Your task to perform on an android device: Go to network settings Image 0: 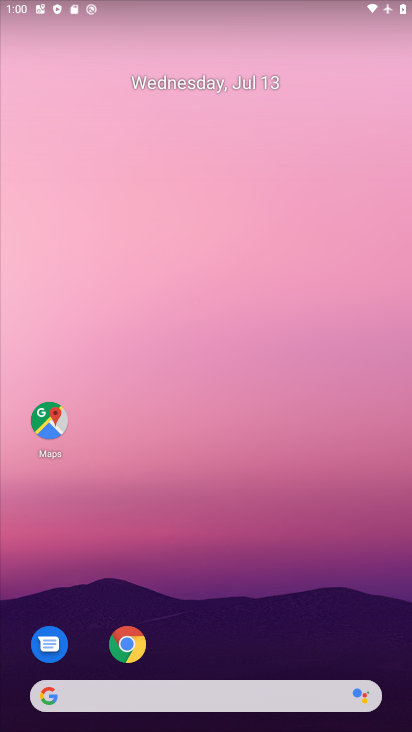
Step 0: drag from (291, 579) to (266, 78)
Your task to perform on an android device: Go to network settings Image 1: 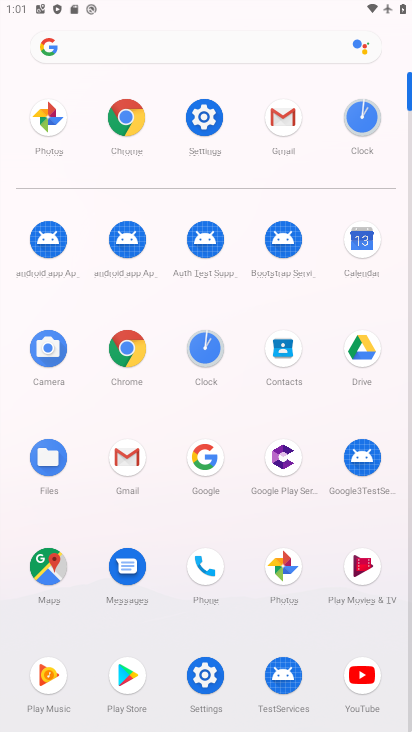
Step 1: click (205, 103)
Your task to perform on an android device: Go to network settings Image 2: 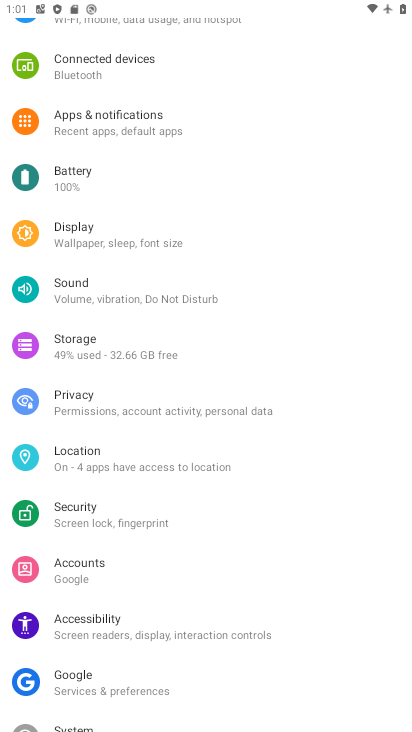
Step 2: drag from (190, 87) to (207, 532)
Your task to perform on an android device: Go to network settings Image 3: 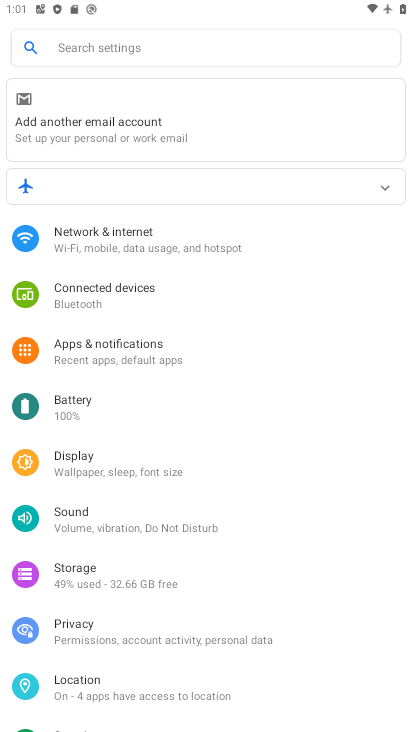
Step 3: click (153, 250)
Your task to perform on an android device: Go to network settings Image 4: 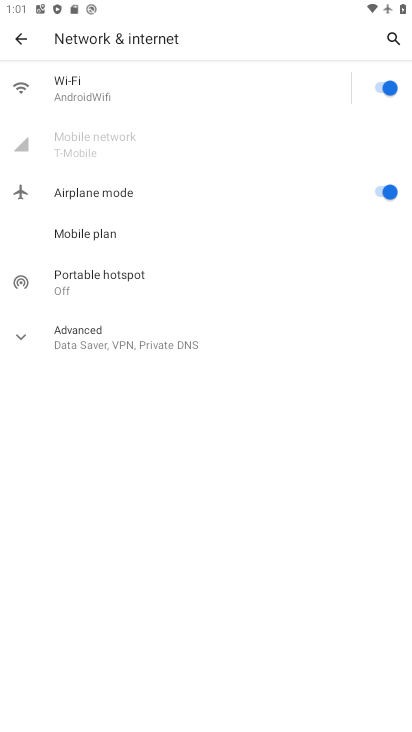
Step 4: task complete